Your task to perform on an android device: Open calendar and show me the second week of next month Image 0: 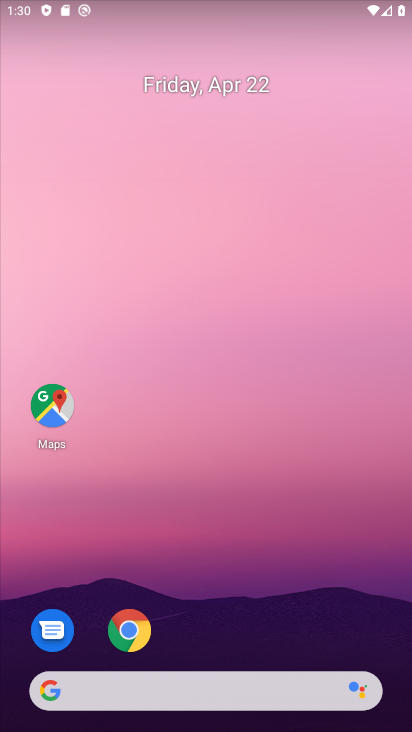
Step 0: drag from (201, 588) to (292, 118)
Your task to perform on an android device: Open calendar and show me the second week of next month Image 1: 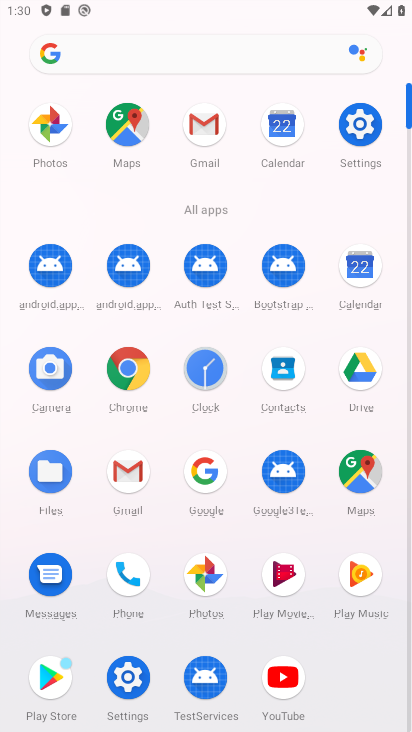
Step 1: click (359, 264)
Your task to perform on an android device: Open calendar and show me the second week of next month Image 2: 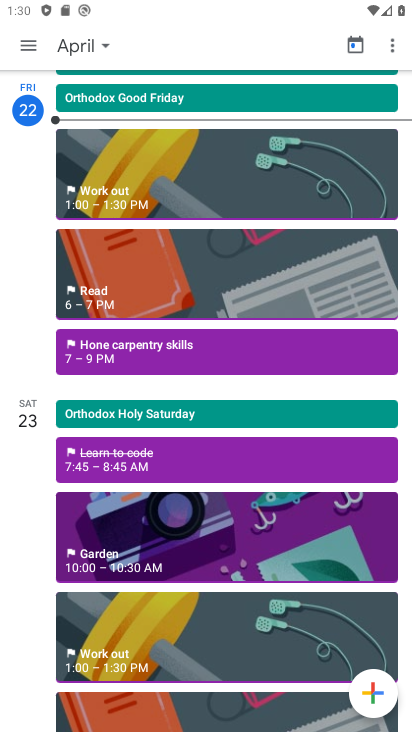
Step 2: click (81, 44)
Your task to perform on an android device: Open calendar and show me the second week of next month Image 3: 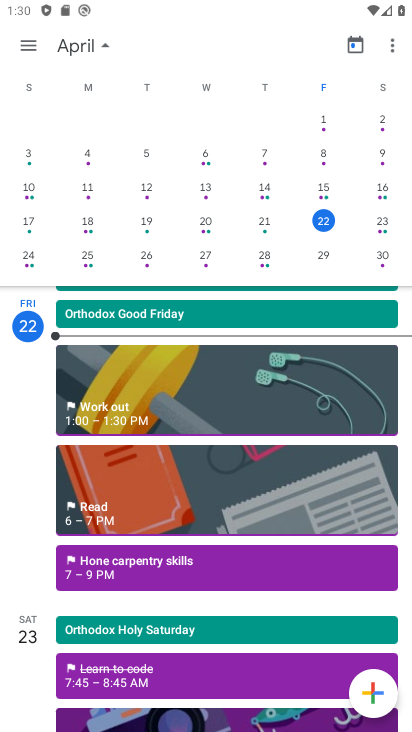
Step 3: drag from (386, 223) to (0, 182)
Your task to perform on an android device: Open calendar and show me the second week of next month Image 4: 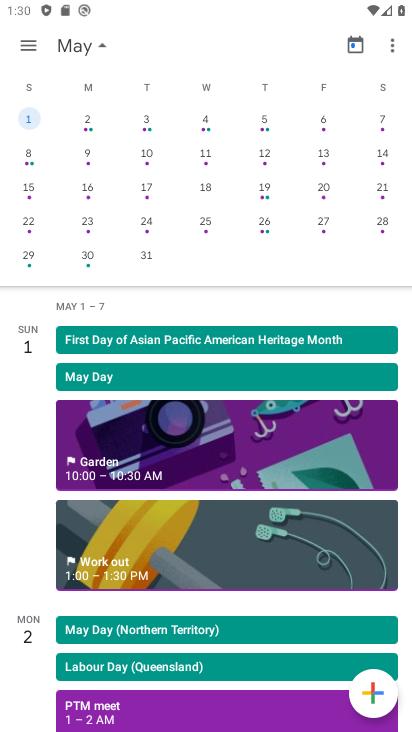
Step 4: click (29, 44)
Your task to perform on an android device: Open calendar and show me the second week of next month Image 5: 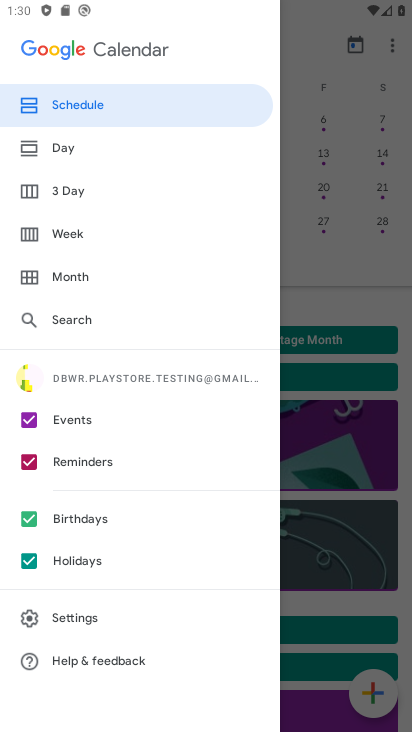
Step 5: click (97, 232)
Your task to perform on an android device: Open calendar and show me the second week of next month Image 6: 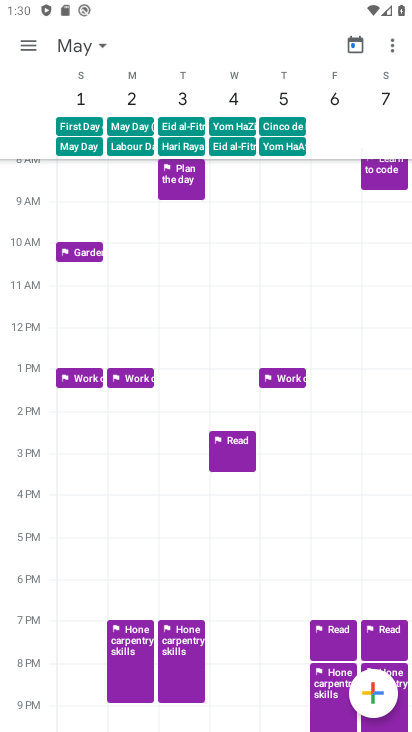
Step 6: task complete